Your task to perform on an android device: Go to settings Image 0: 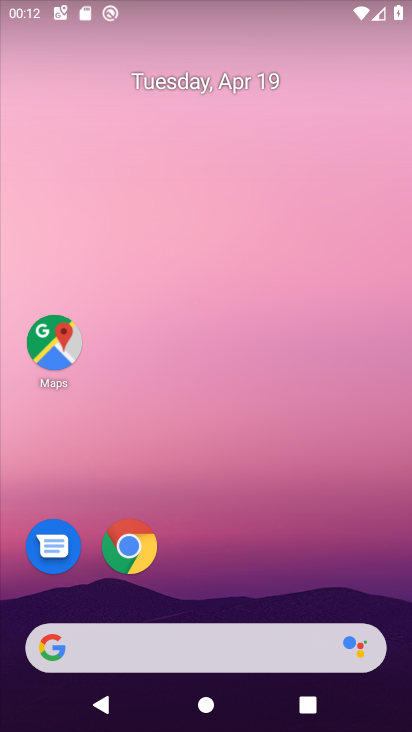
Step 0: drag from (226, 549) to (266, 88)
Your task to perform on an android device: Go to settings Image 1: 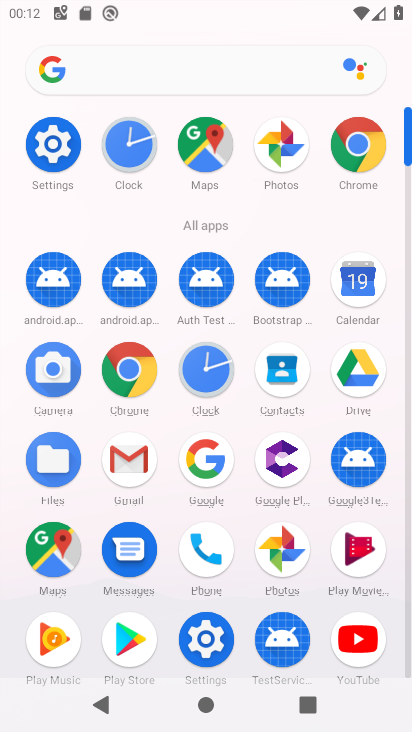
Step 1: click (51, 138)
Your task to perform on an android device: Go to settings Image 2: 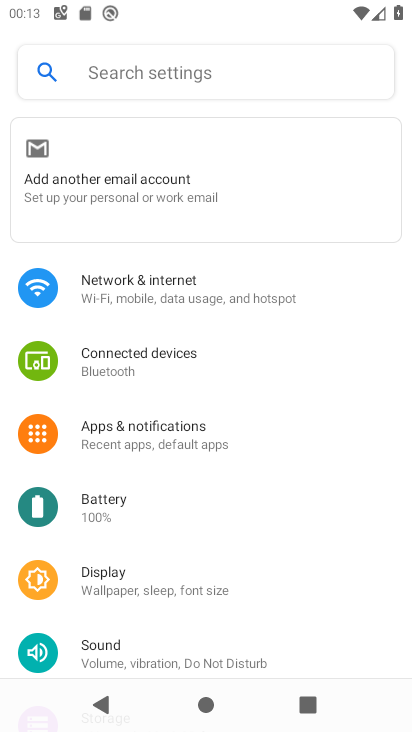
Step 2: task complete